Your task to perform on an android device: Show the shopping cart on costco.com. Add logitech g pro to the cart on costco.com, then select checkout. Image 0: 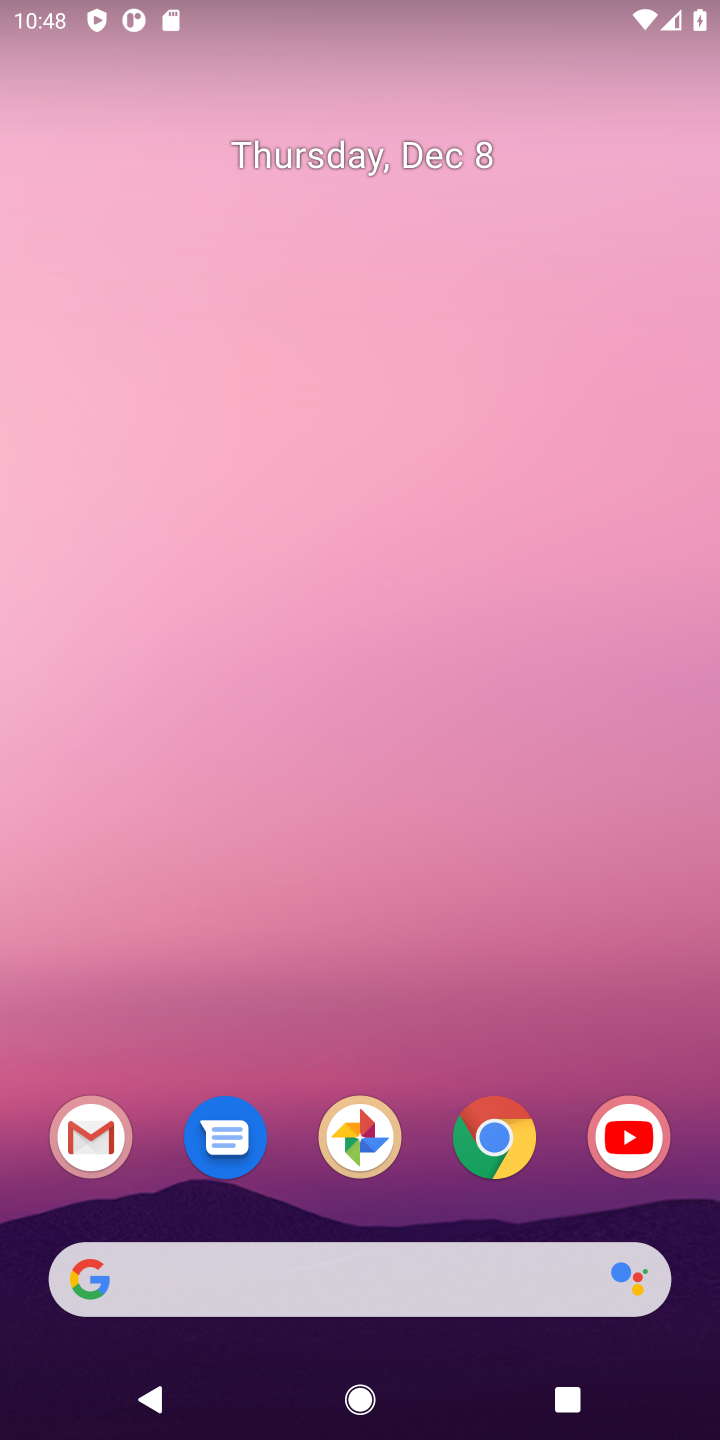
Step 0: task complete